Your task to perform on an android device: Open Amazon Image 0: 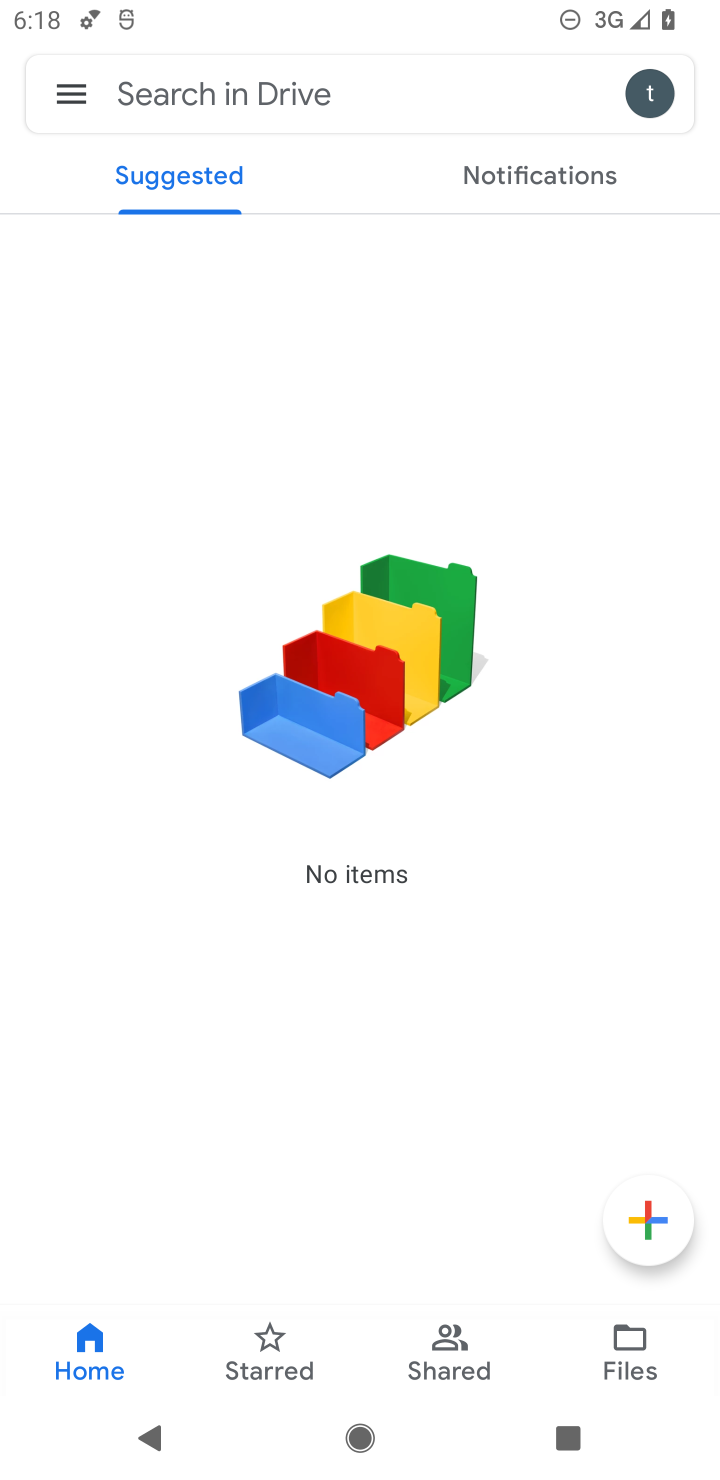
Step 0: press home button
Your task to perform on an android device: Open Amazon Image 1: 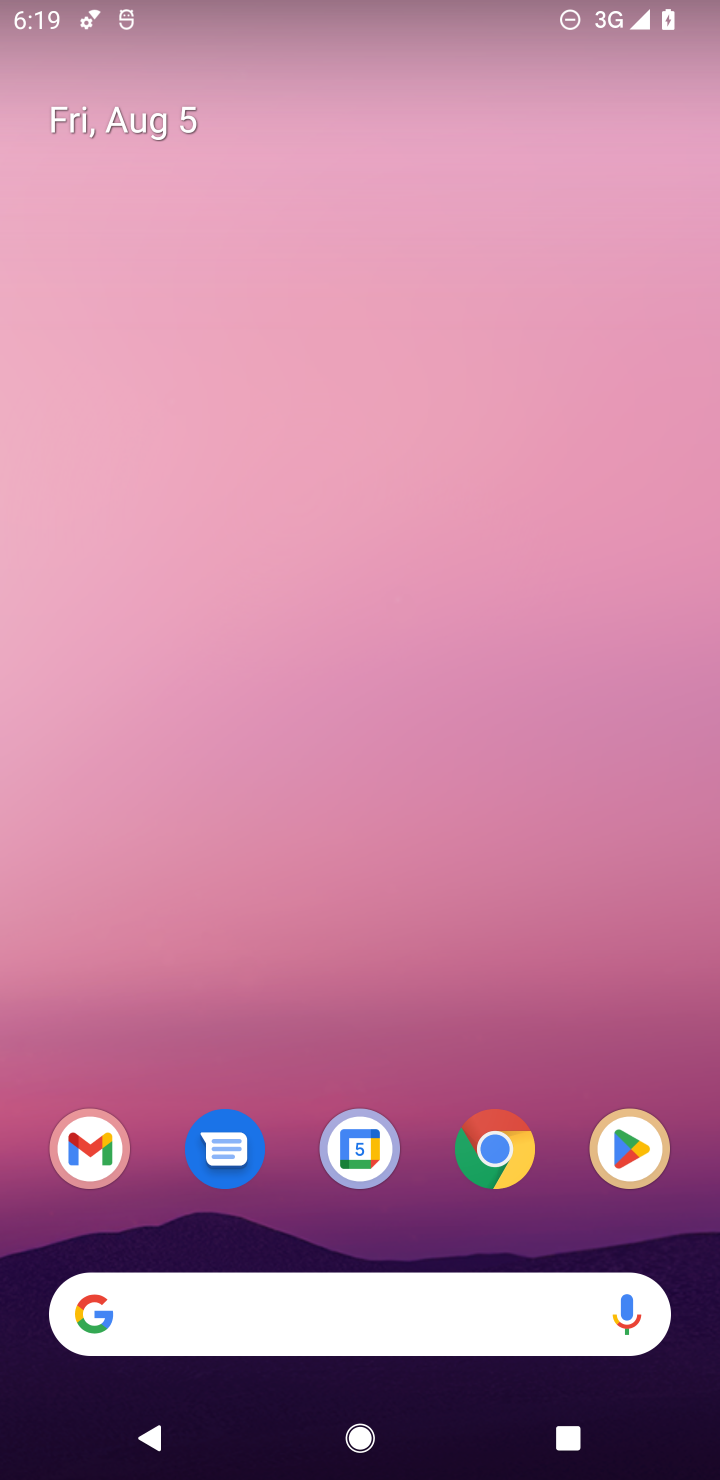
Step 1: click (490, 1150)
Your task to perform on an android device: Open Amazon Image 2: 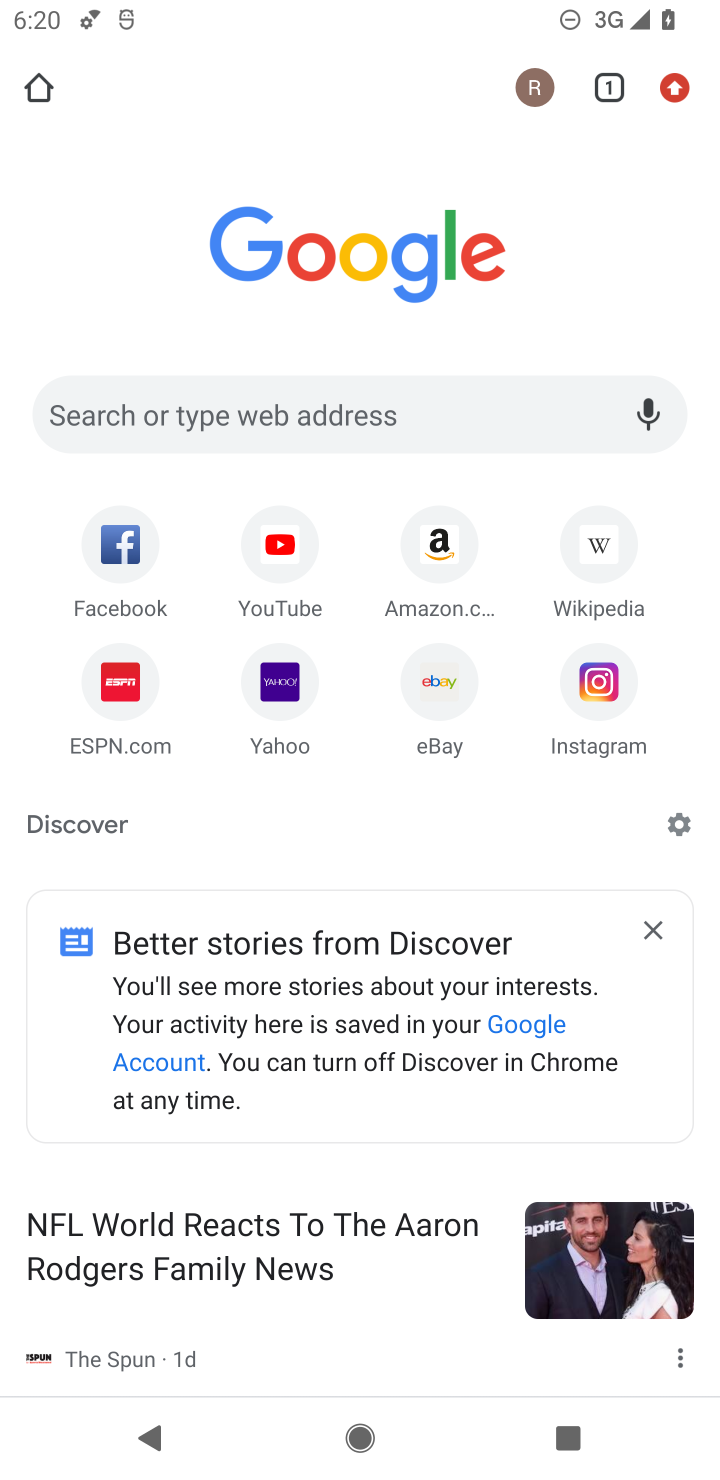
Step 2: click (439, 548)
Your task to perform on an android device: Open Amazon Image 3: 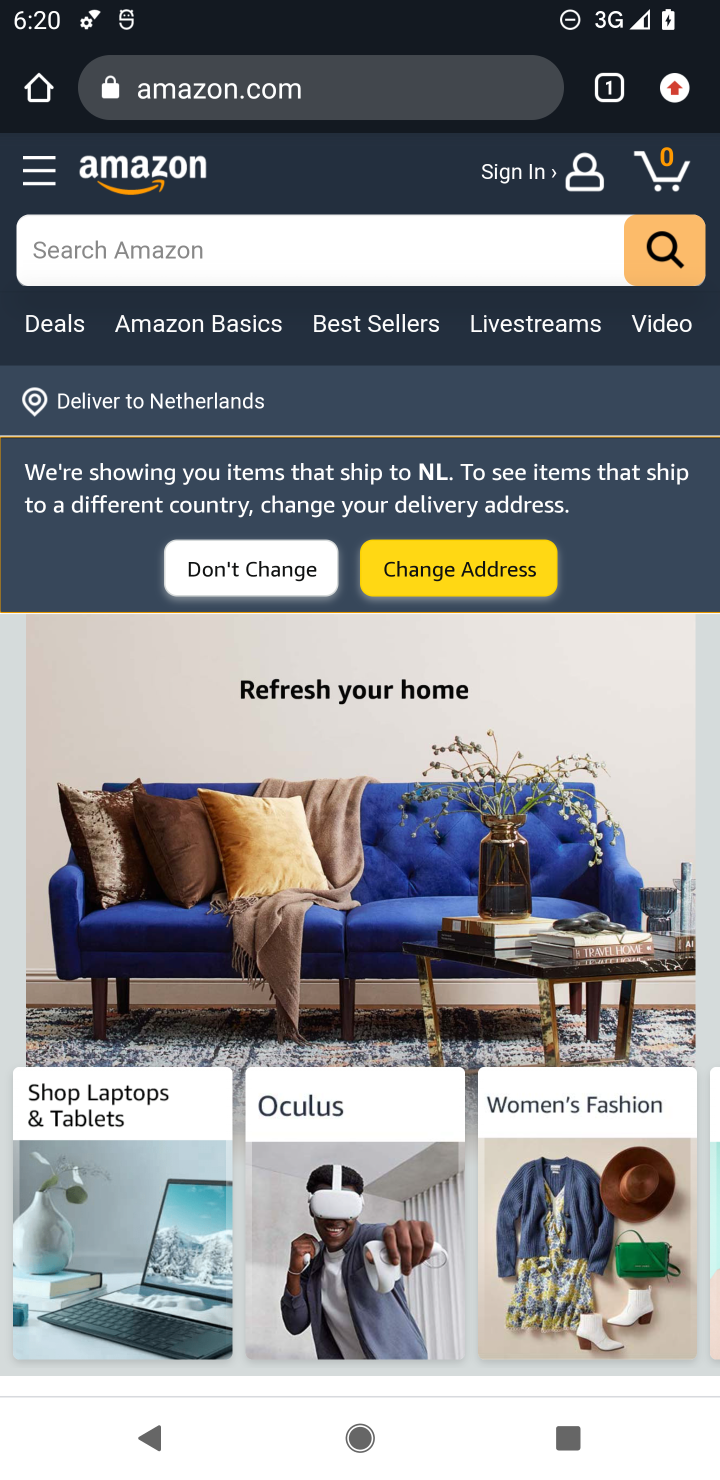
Step 3: task complete